Your task to perform on an android device: Find coffee shops on Maps Image 0: 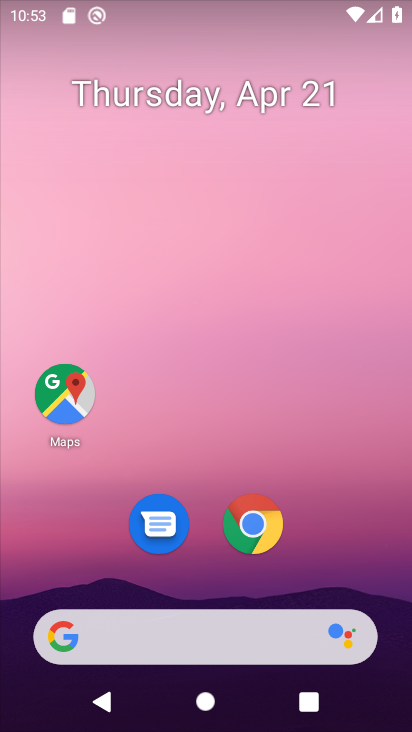
Step 0: click (56, 399)
Your task to perform on an android device: Find coffee shops on Maps Image 1: 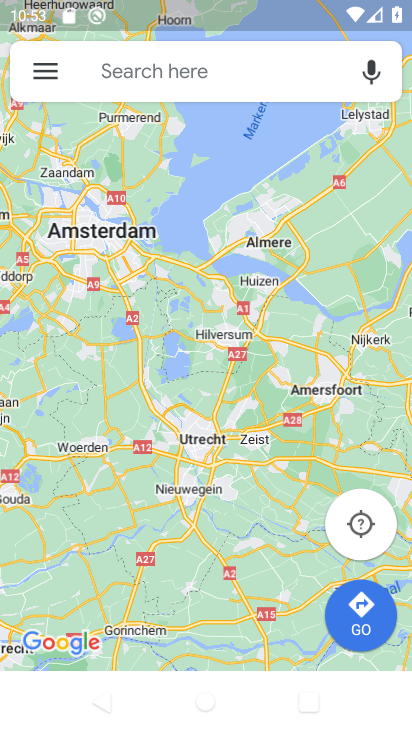
Step 1: click (254, 65)
Your task to perform on an android device: Find coffee shops on Maps Image 2: 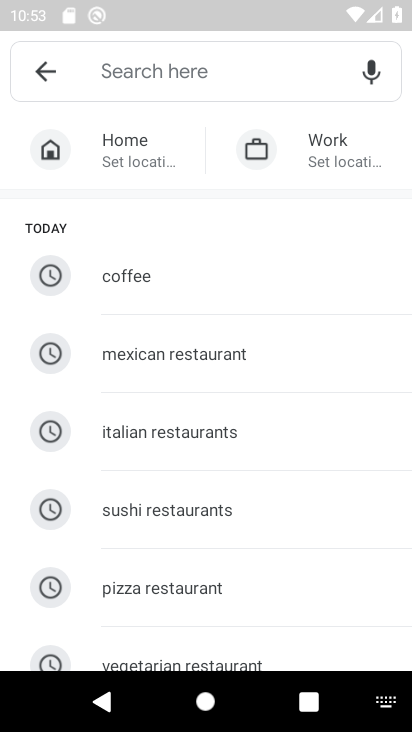
Step 2: click (161, 282)
Your task to perform on an android device: Find coffee shops on Maps Image 3: 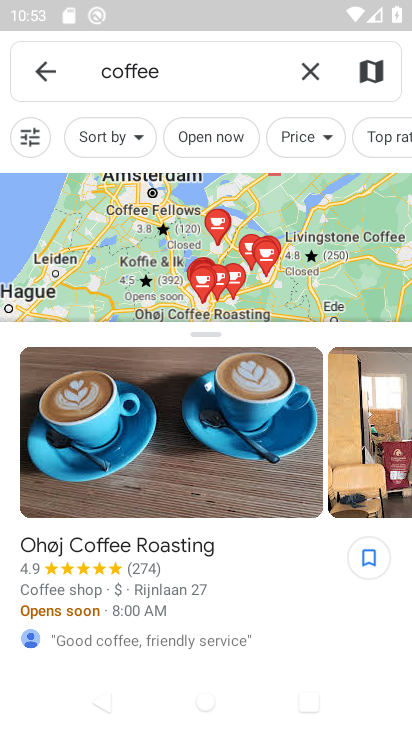
Step 3: task complete